Your task to perform on an android device: turn off notifications in google photos Image 0: 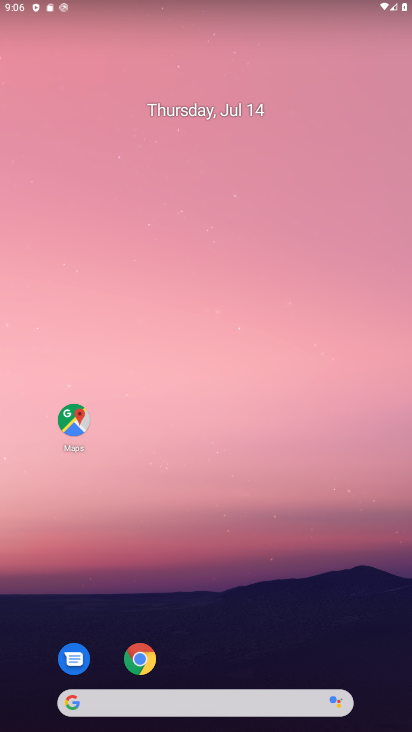
Step 0: drag from (252, 609) to (356, 166)
Your task to perform on an android device: turn off notifications in google photos Image 1: 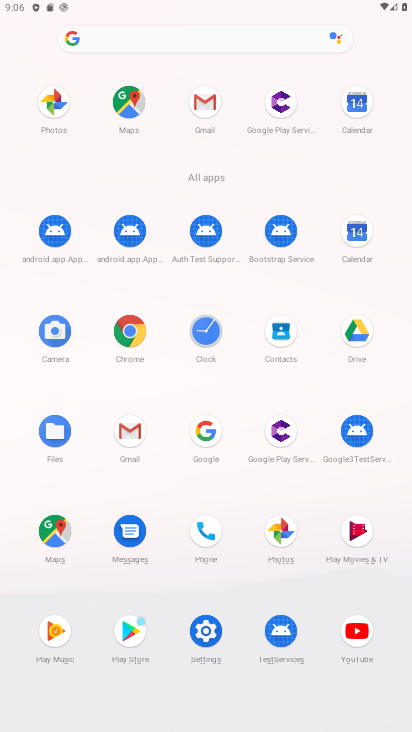
Step 1: click (275, 536)
Your task to perform on an android device: turn off notifications in google photos Image 2: 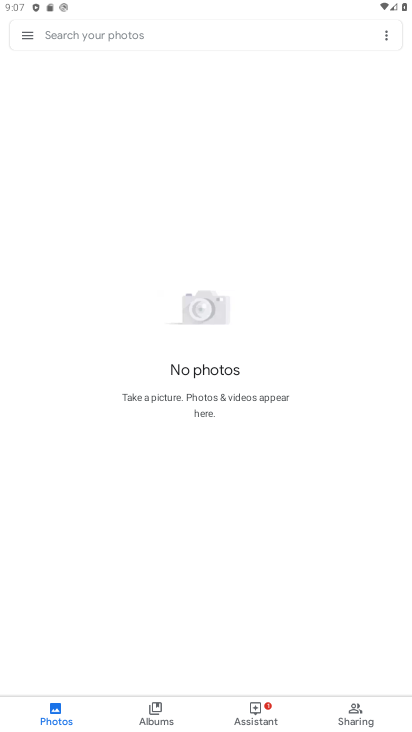
Step 2: click (388, 40)
Your task to perform on an android device: turn off notifications in google photos Image 3: 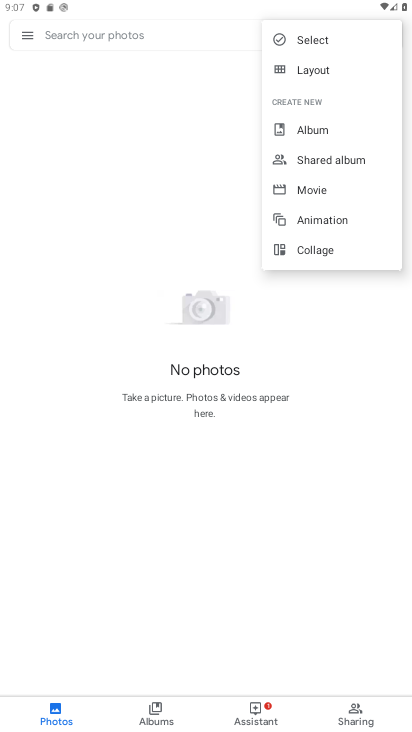
Step 3: click (19, 37)
Your task to perform on an android device: turn off notifications in google photos Image 4: 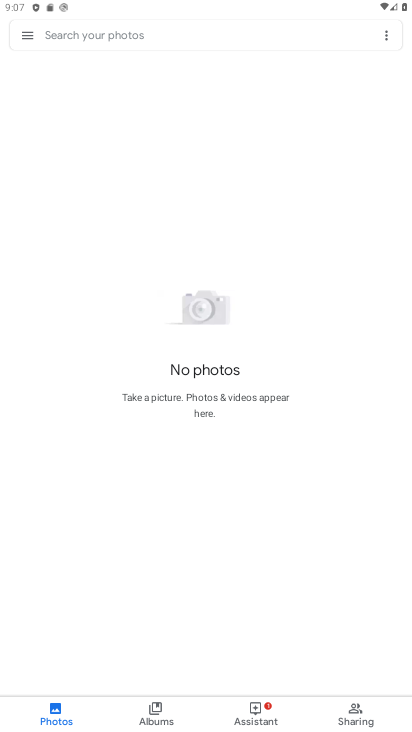
Step 4: click (30, 36)
Your task to perform on an android device: turn off notifications in google photos Image 5: 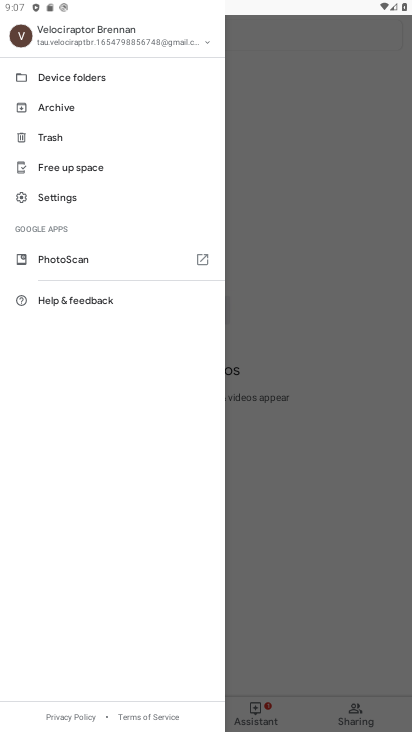
Step 5: click (62, 202)
Your task to perform on an android device: turn off notifications in google photos Image 6: 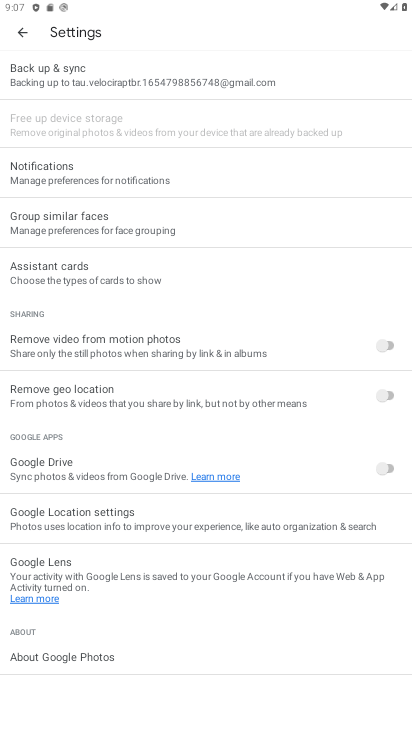
Step 6: click (65, 190)
Your task to perform on an android device: turn off notifications in google photos Image 7: 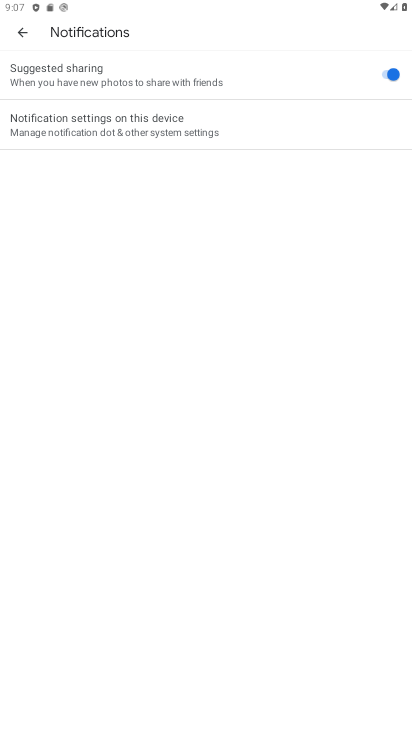
Step 7: click (138, 139)
Your task to perform on an android device: turn off notifications in google photos Image 8: 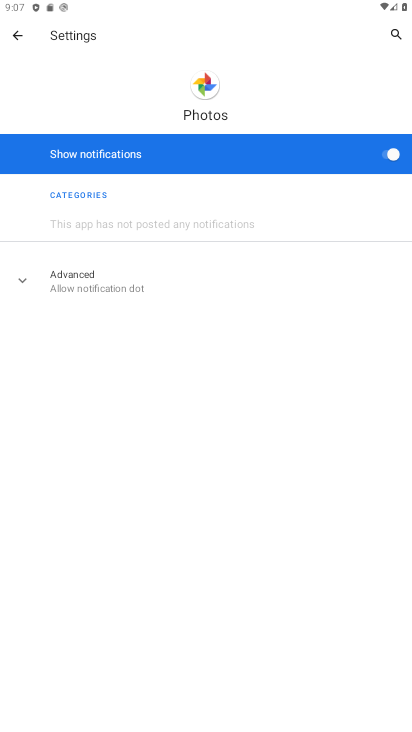
Step 8: click (390, 155)
Your task to perform on an android device: turn off notifications in google photos Image 9: 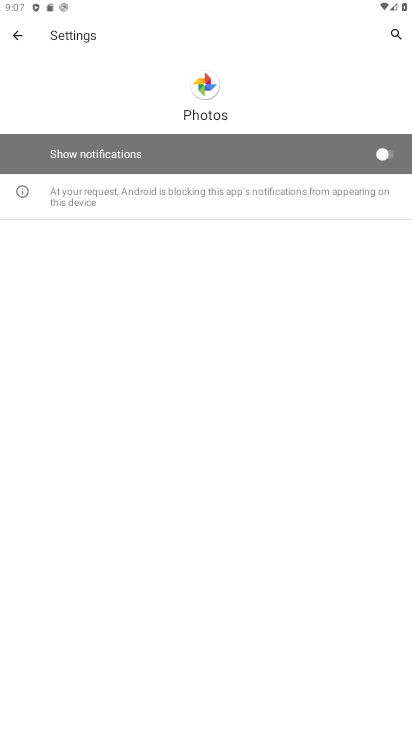
Step 9: task complete